Your task to perform on an android device: toggle notification dots Image 0: 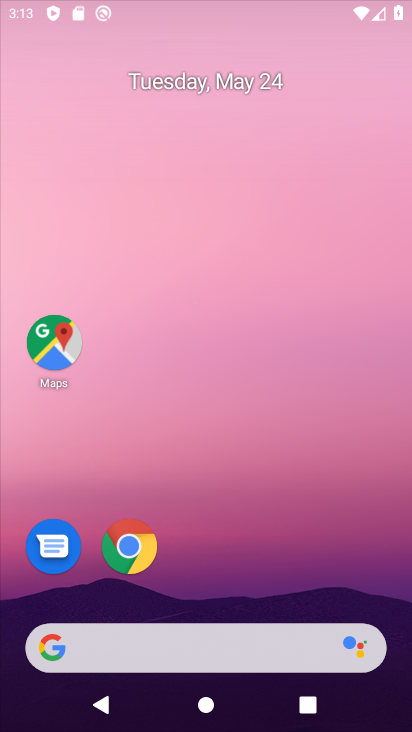
Step 0: drag from (284, 726) to (240, 212)
Your task to perform on an android device: toggle notification dots Image 1: 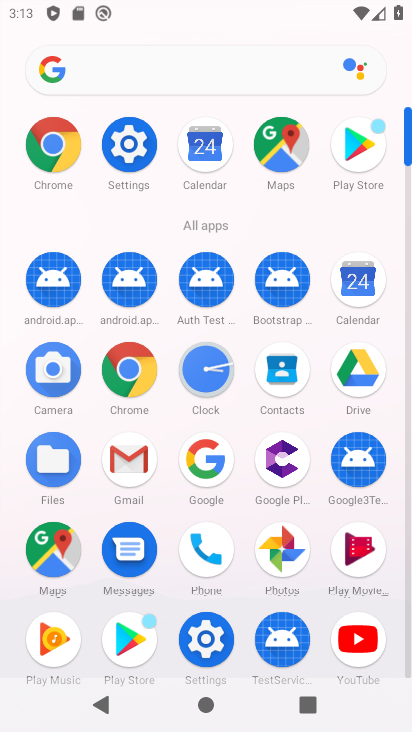
Step 1: click (140, 151)
Your task to perform on an android device: toggle notification dots Image 2: 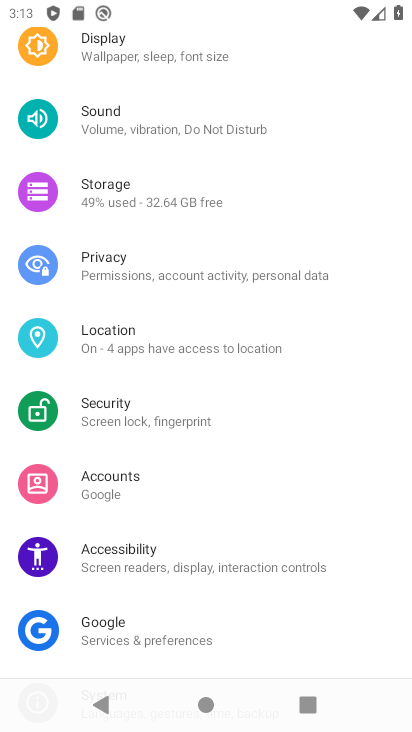
Step 2: drag from (160, 156) to (195, 647)
Your task to perform on an android device: toggle notification dots Image 3: 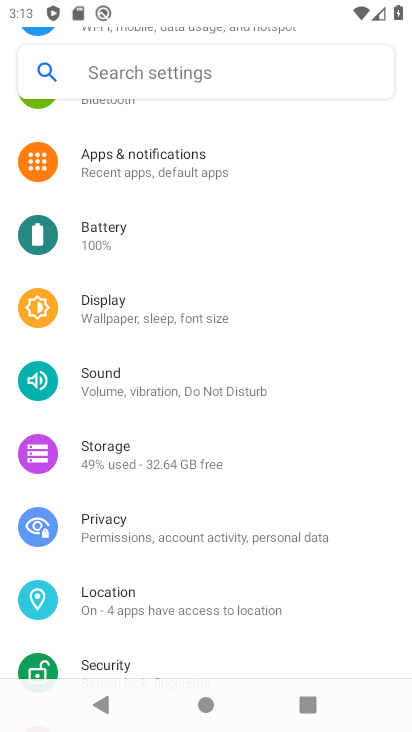
Step 3: drag from (135, 245) to (207, 471)
Your task to perform on an android device: toggle notification dots Image 4: 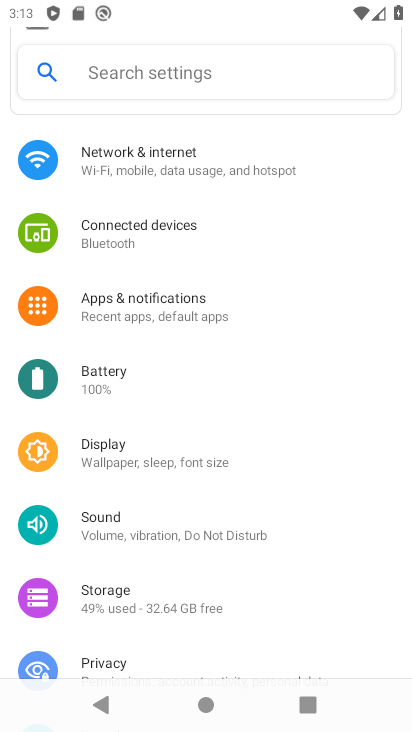
Step 4: drag from (183, 258) to (207, 454)
Your task to perform on an android device: toggle notification dots Image 5: 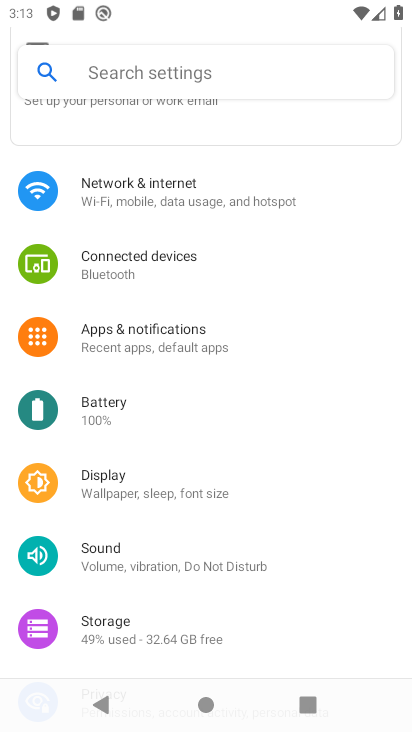
Step 5: drag from (136, 175) to (172, 507)
Your task to perform on an android device: toggle notification dots Image 6: 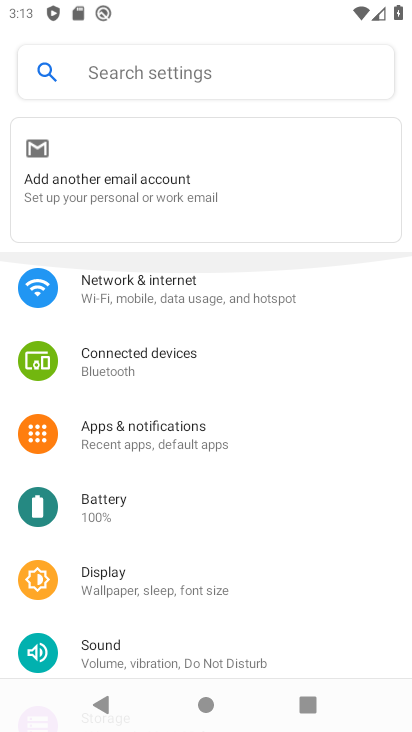
Step 6: drag from (186, 256) to (201, 522)
Your task to perform on an android device: toggle notification dots Image 7: 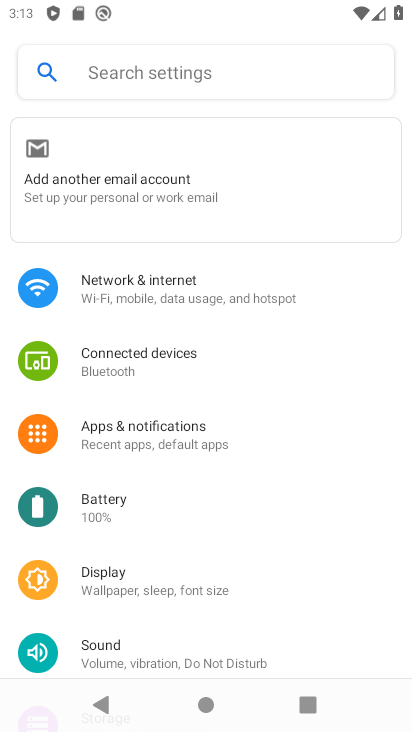
Step 7: click (150, 427)
Your task to perform on an android device: toggle notification dots Image 8: 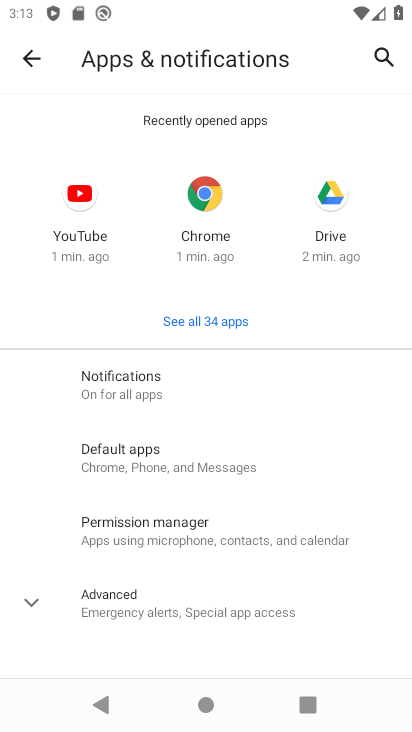
Step 8: click (124, 376)
Your task to perform on an android device: toggle notification dots Image 9: 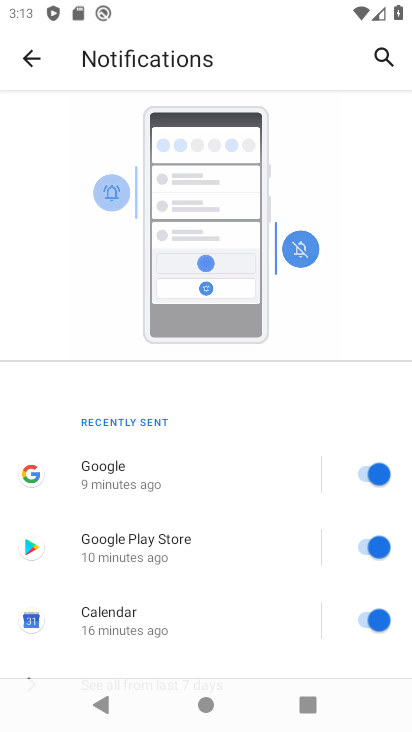
Step 9: drag from (199, 524) to (214, 341)
Your task to perform on an android device: toggle notification dots Image 10: 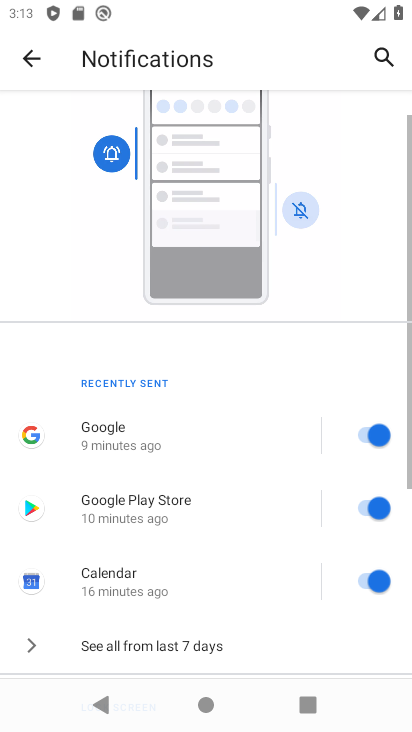
Step 10: drag from (256, 553) to (267, 394)
Your task to perform on an android device: toggle notification dots Image 11: 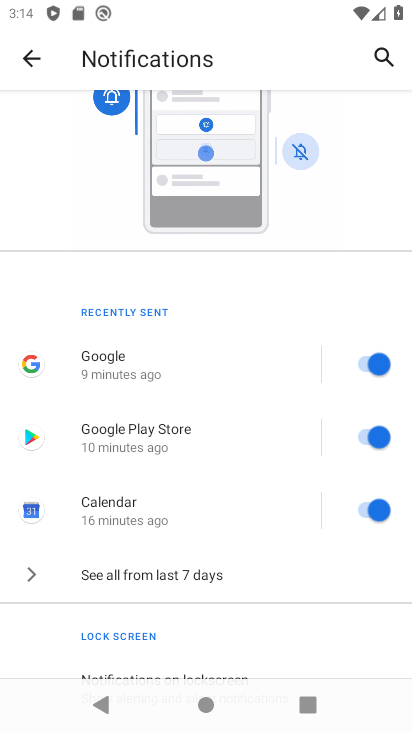
Step 11: drag from (181, 494) to (314, 165)
Your task to perform on an android device: toggle notification dots Image 12: 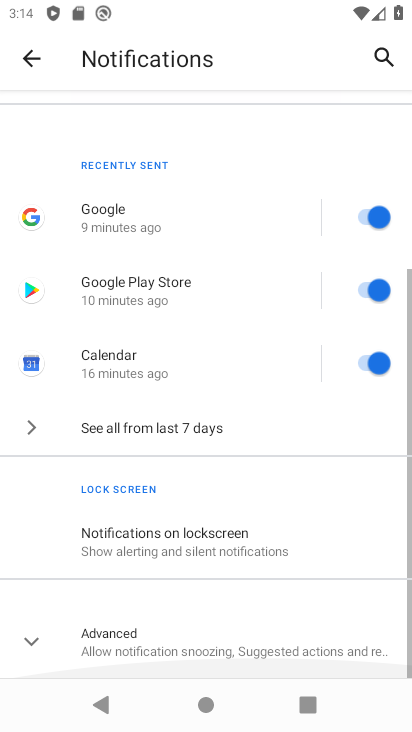
Step 12: drag from (238, 476) to (248, 238)
Your task to perform on an android device: toggle notification dots Image 13: 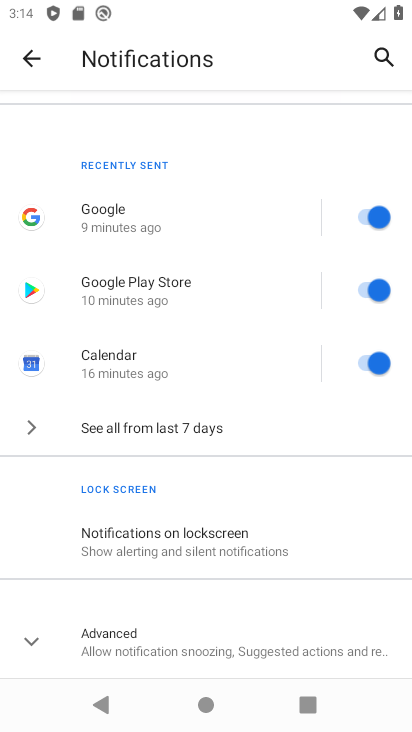
Step 13: click (116, 646)
Your task to perform on an android device: toggle notification dots Image 14: 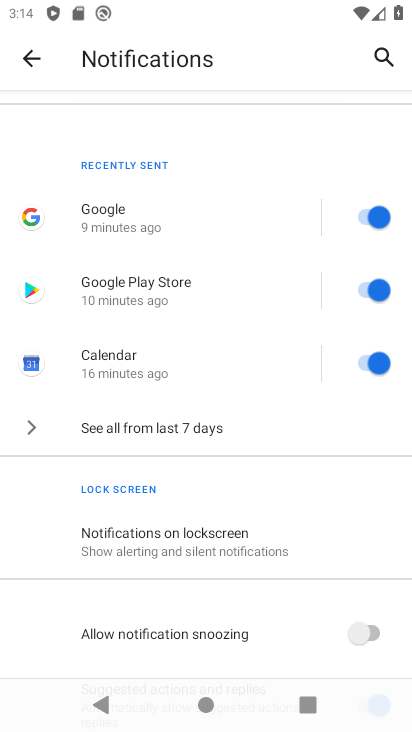
Step 14: click (182, 318)
Your task to perform on an android device: toggle notification dots Image 15: 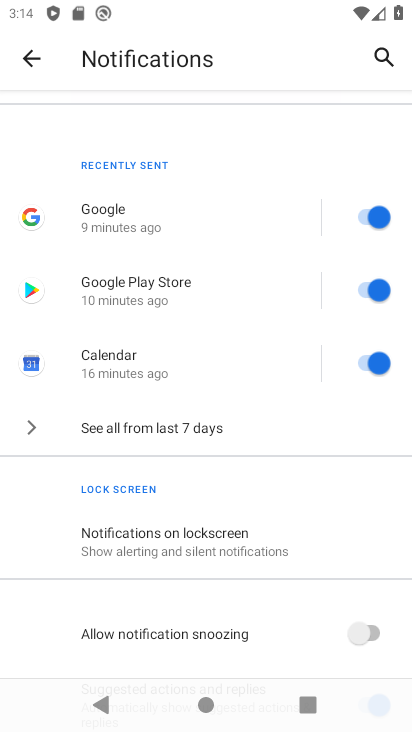
Step 15: click (293, 244)
Your task to perform on an android device: toggle notification dots Image 16: 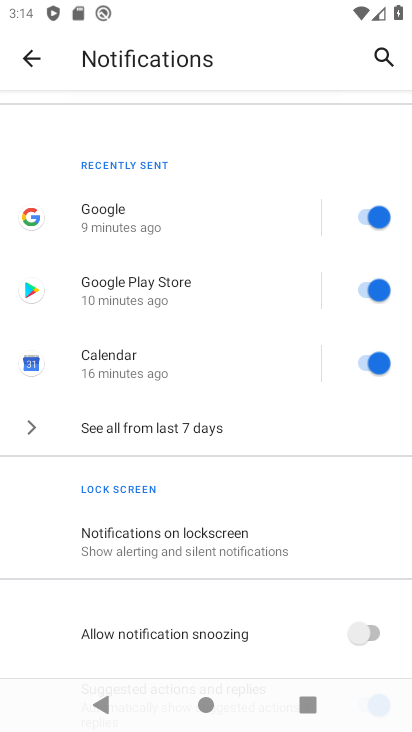
Step 16: drag from (235, 469) to (259, 221)
Your task to perform on an android device: toggle notification dots Image 17: 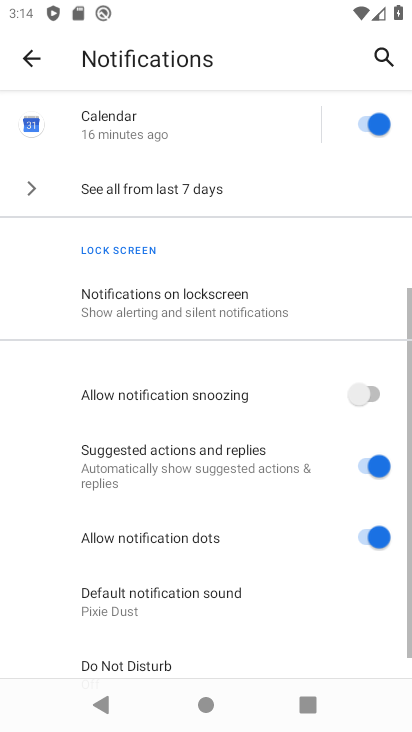
Step 17: drag from (205, 571) to (259, 241)
Your task to perform on an android device: toggle notification dots Image 18: 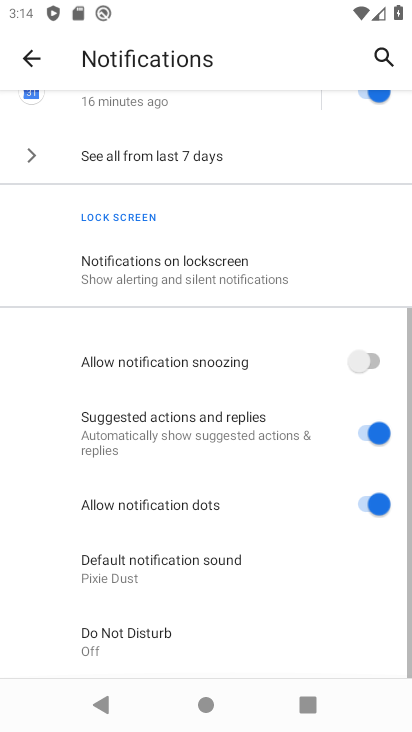
Step 18: drag from (285, 510) to (292, 199)
Your task to perform on an android device: toggle notification dots Image 19: 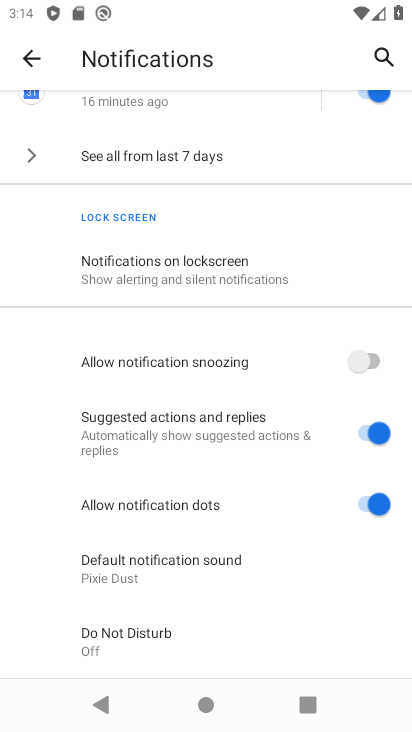
Step 19: click (383, 490)
Your task to perform on an android device: toggle notification dots Image 20: 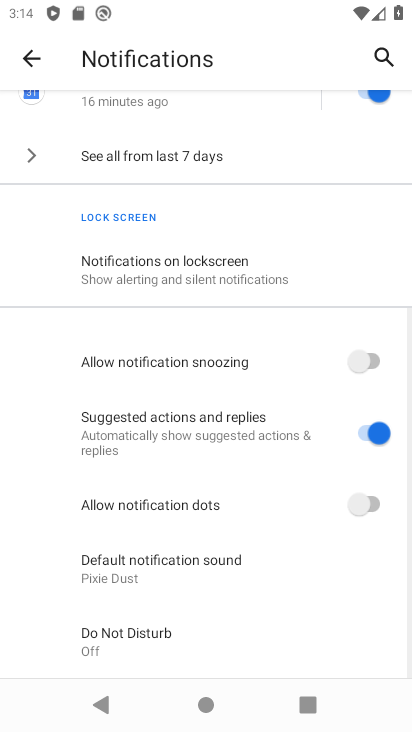
Step 20: task complete